Your task to perform on an android device: turn pop-ups on in chrome Image 0: 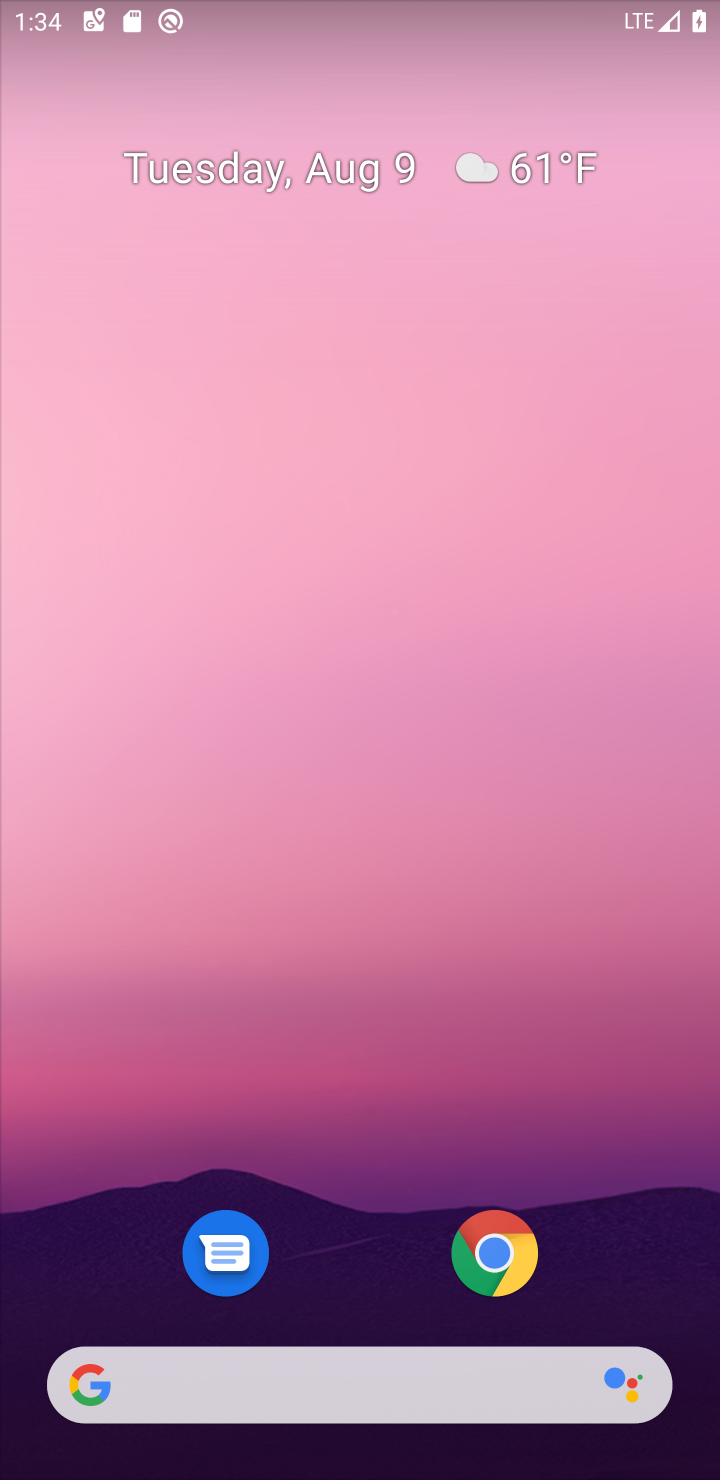
Step 0: drag from (564, 787) to (312, 58)
Your task to perform on an android device: turn pop-ups on in chrome Image 1: 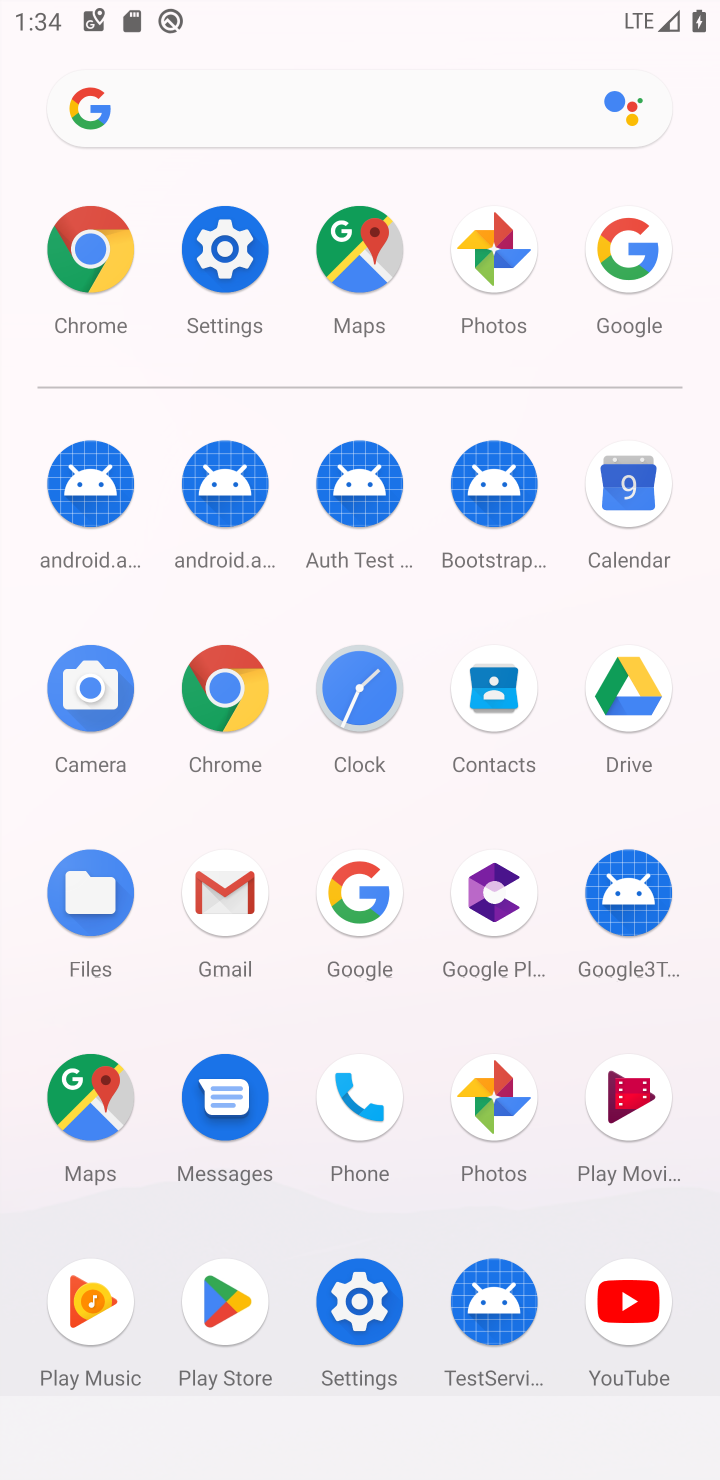
Step 1: click (99, 261)
Your task to perform on an android device: turn pop-ups on in chrome Image 2: 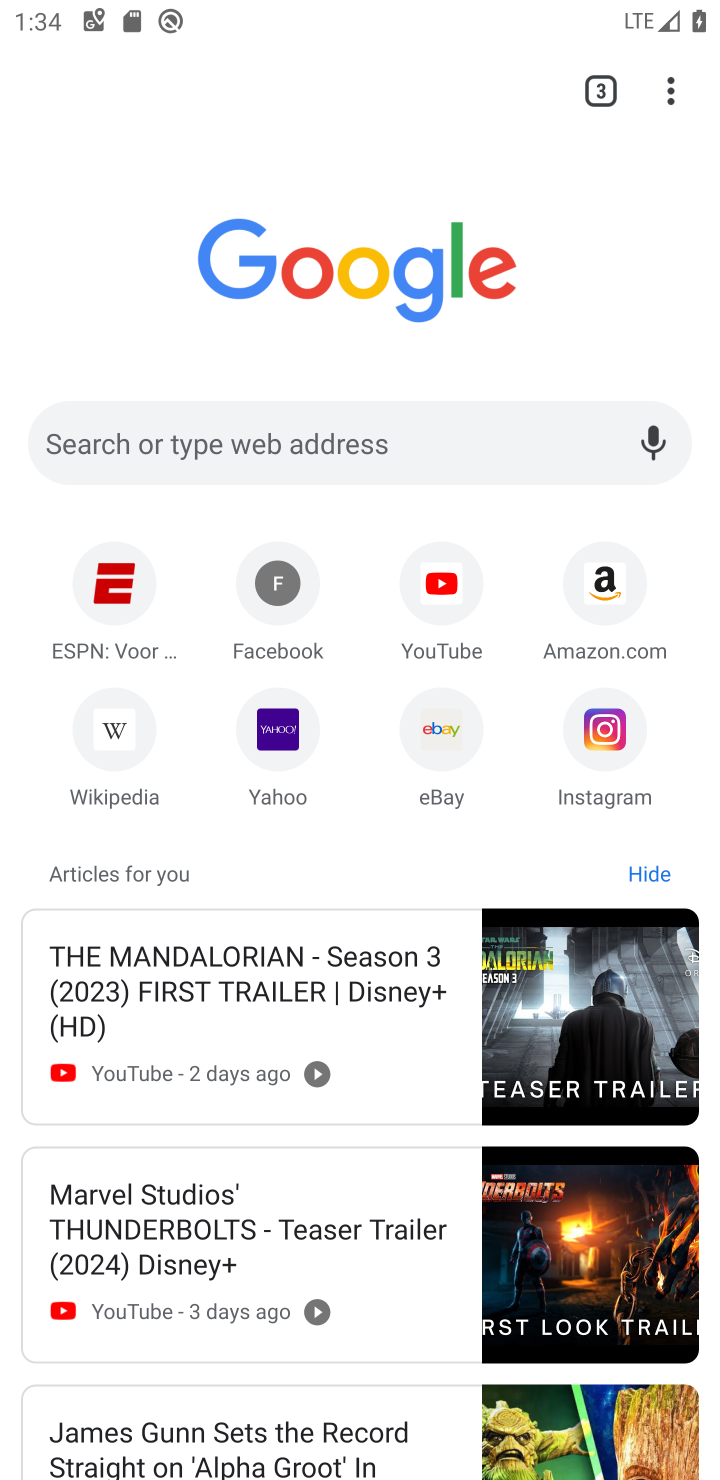
Step 2: click (676, 66)
Your task to perform on an android device: turn pop-ups on in chrome Image 3: 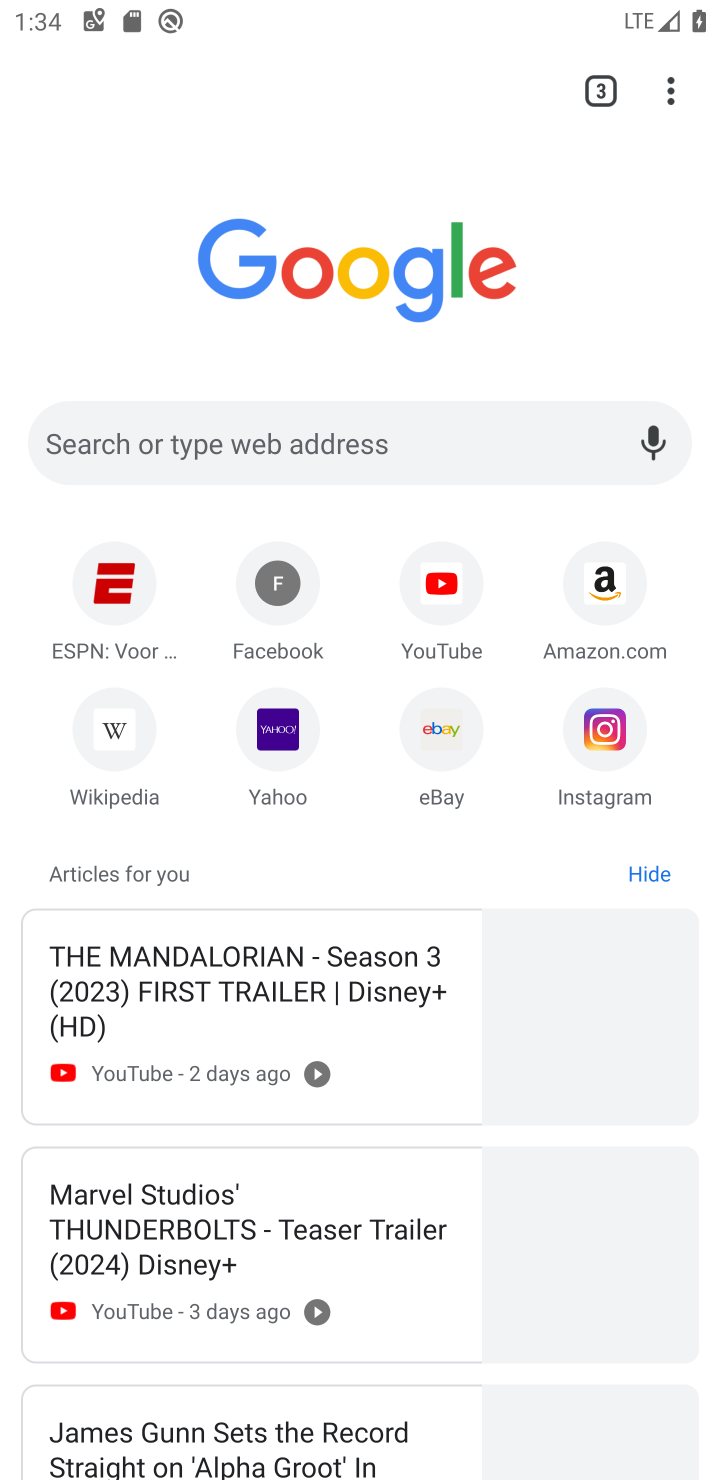
Step 3: click (671, 88)
Your task to perform on an android device: turn pop-ups on in chrome Image 4: 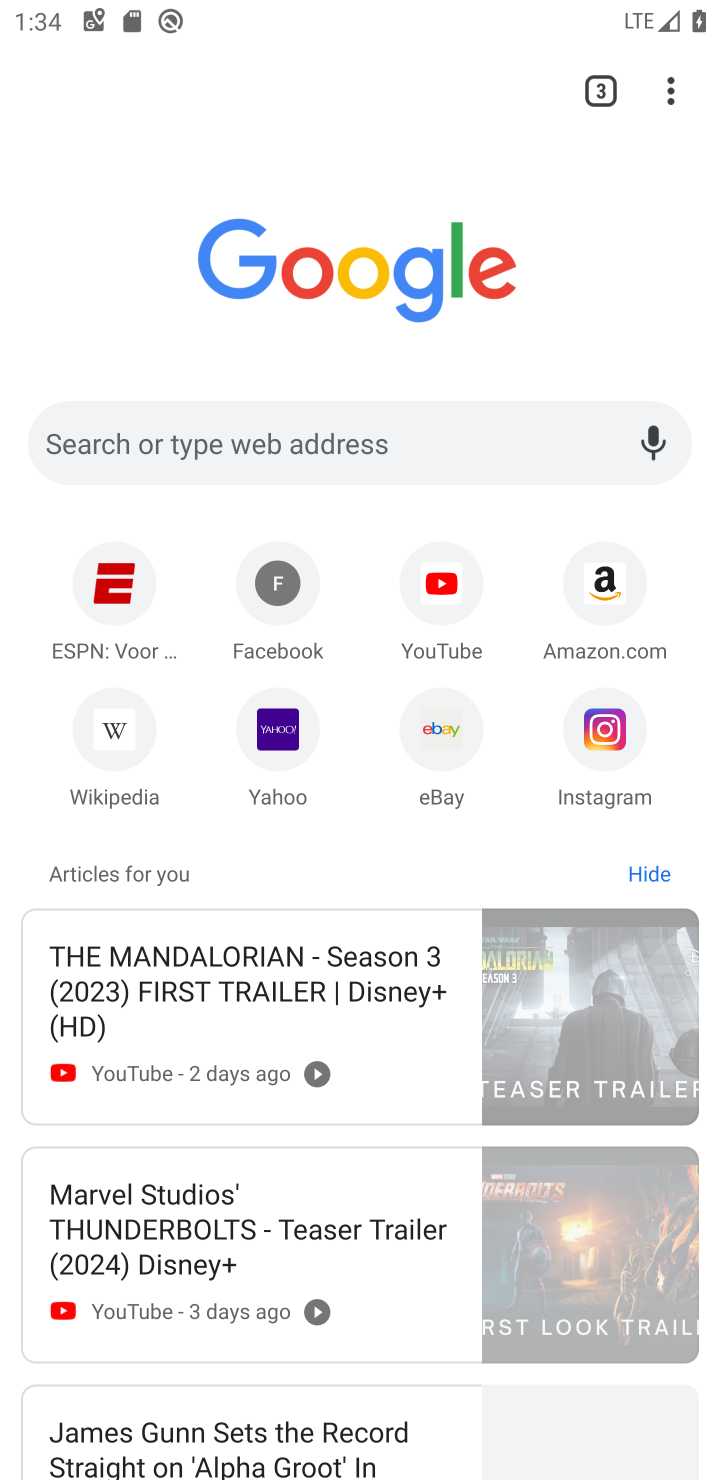
Step 4: click (671, 88)
Your task to perform on an android device: turn pop-ups on in chrome Image 5: 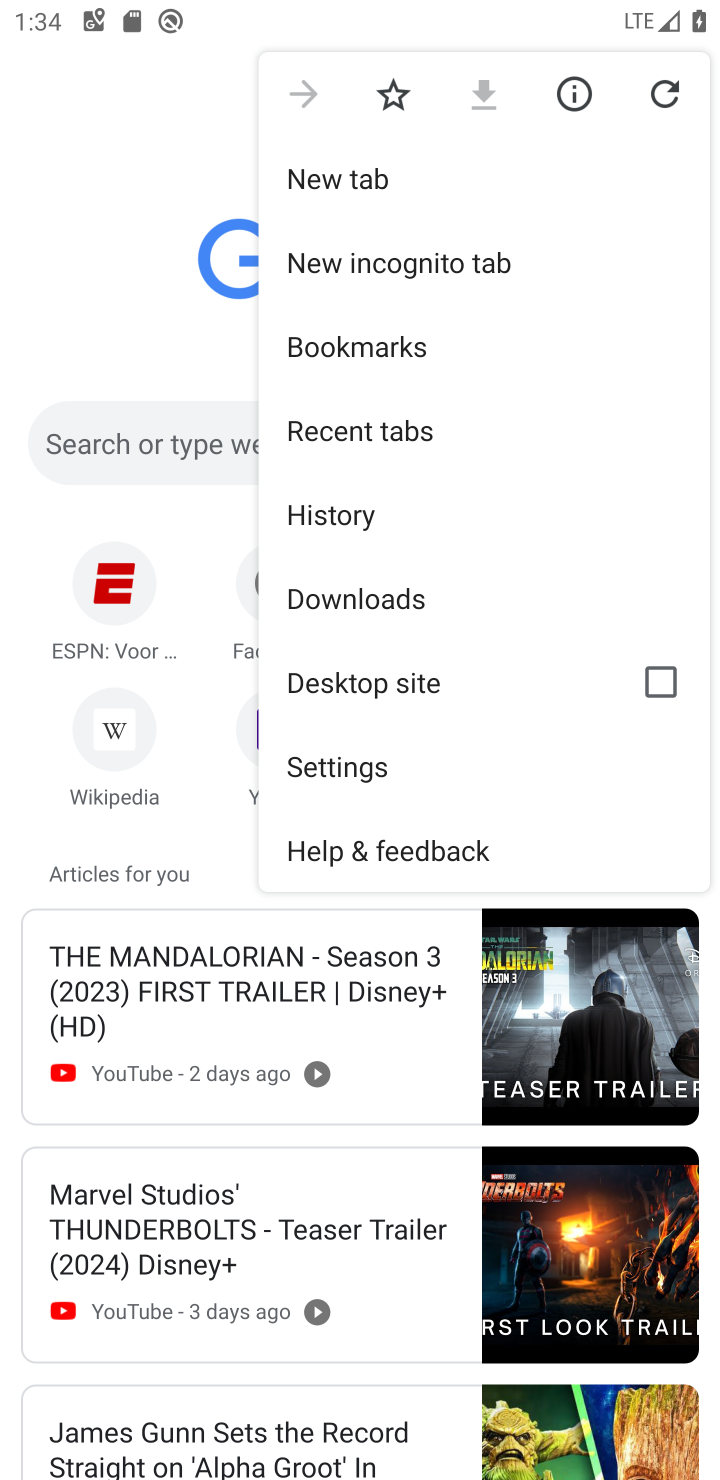
Step 5: click (403, 759)
Your task to perform on an android device: turn pop-ups on in chrome Image 6: 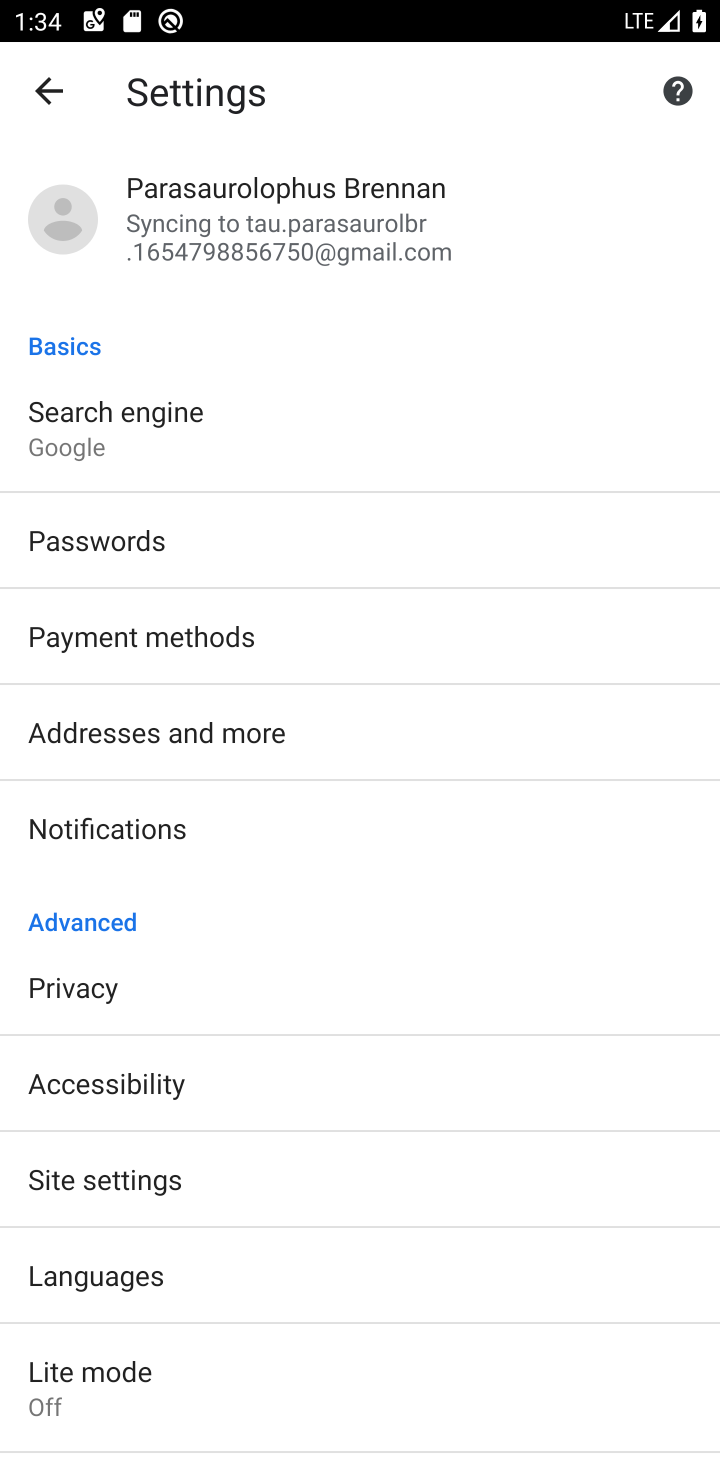
Step 6: click (160, 1143)
Your task to perform on an android device: turn pop-ups on in chrome Image 7: 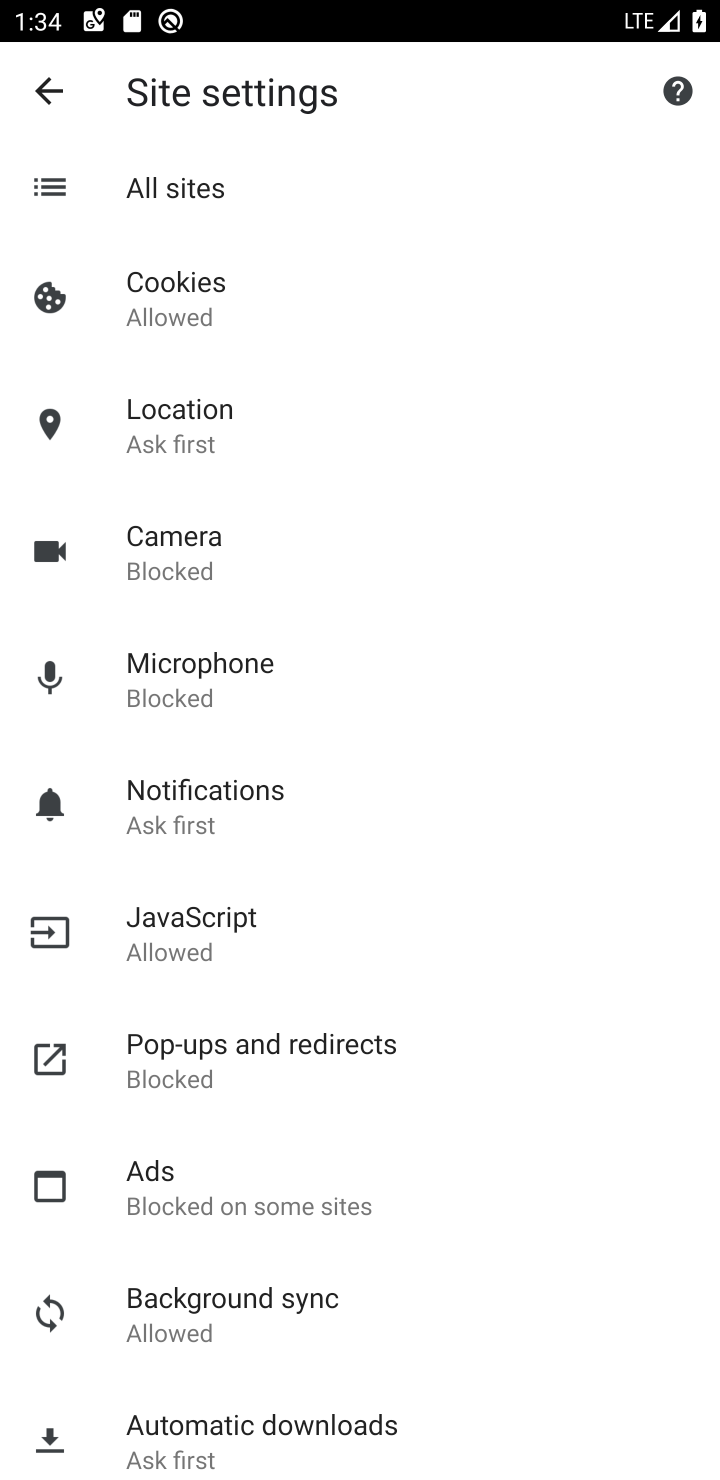
Step 7: click (227, 1062)
Your task to perform on an android device: turn pop-ups on in chrome Image 8: 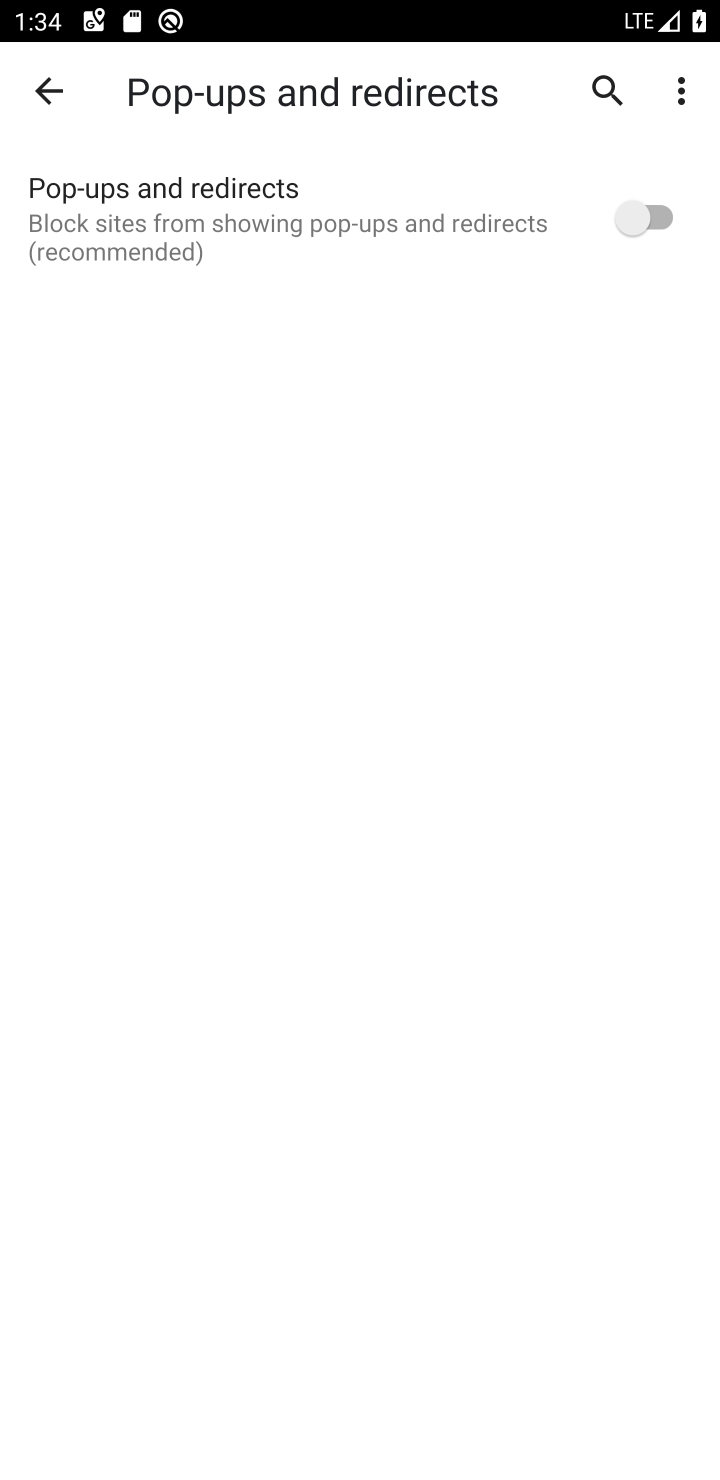
Step 8: click (649, 240)
Your task to perform on an android device: turn pop-ups on in chrome Image 9: 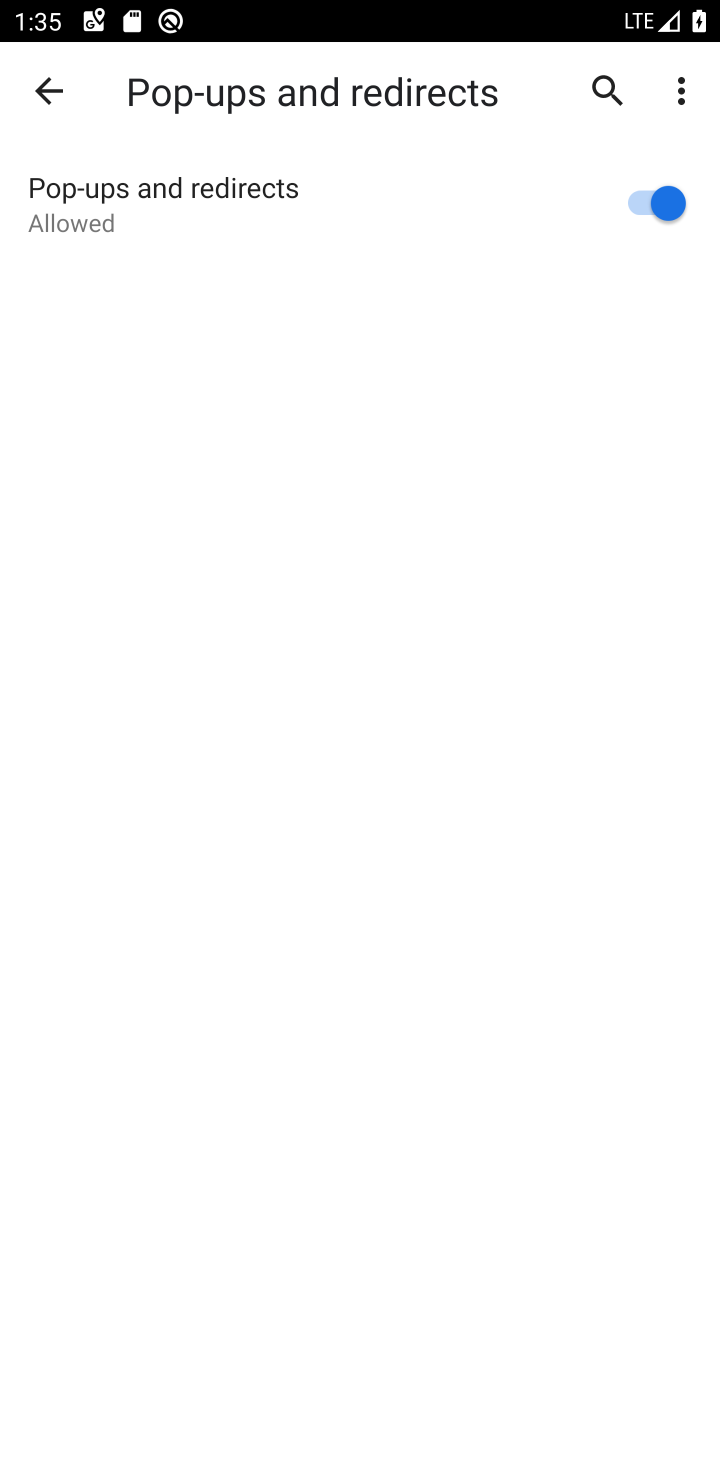
Step 9: task complete